Your task to perform on an android device: Go to ESPN.com Image 0: 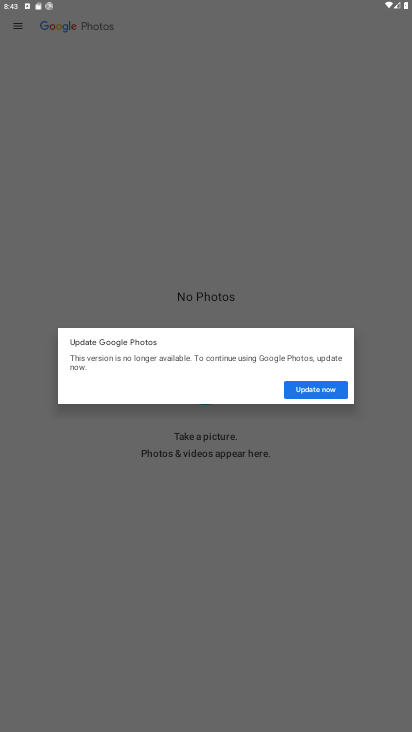
Step 0: press home button
Your task to perform on an android device: Go to ESPN.com Image 1: 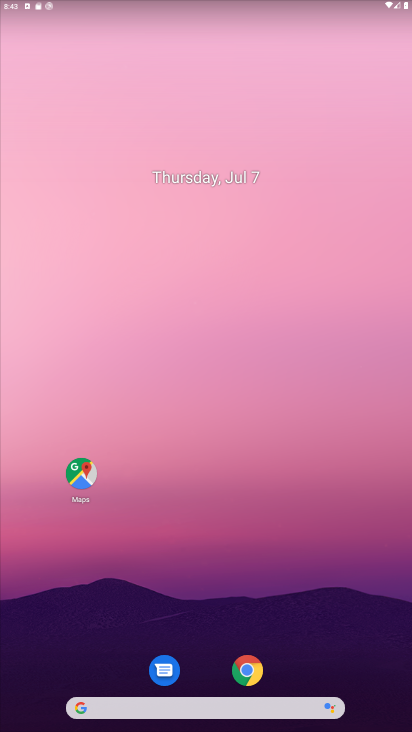
Step 1: click (242, 672)
Your task to perform on an android device: Go to ESPN.com Image 2: 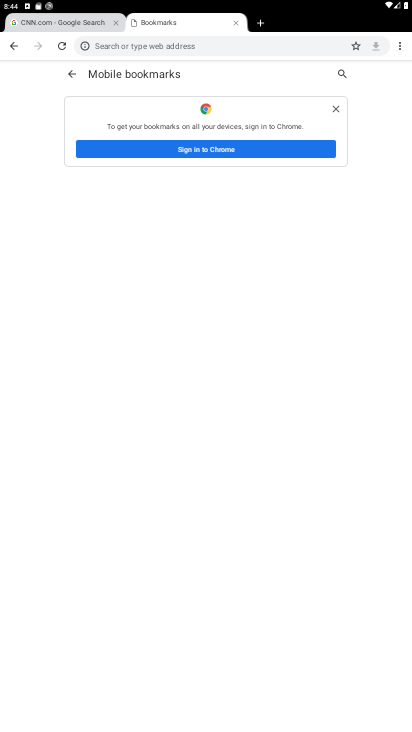
Step 2: click (8, 48)
Your task to perform on an android device: Go to ESPN.com Image 3: 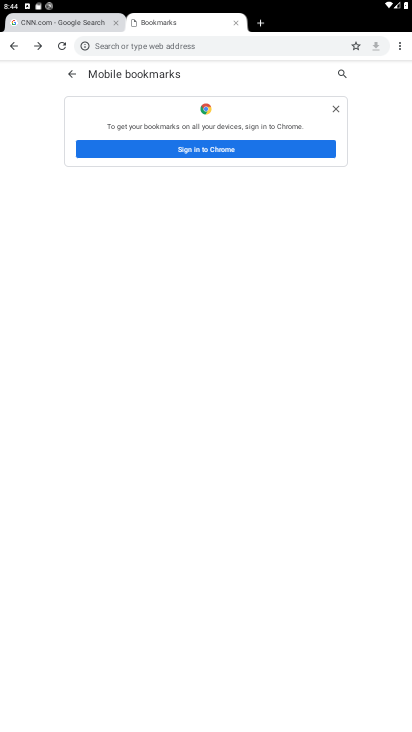
Step 3: drag from (377, 56) to (396, 456)
Your task to perform on an android device: Go to ESPN.com Image 4: 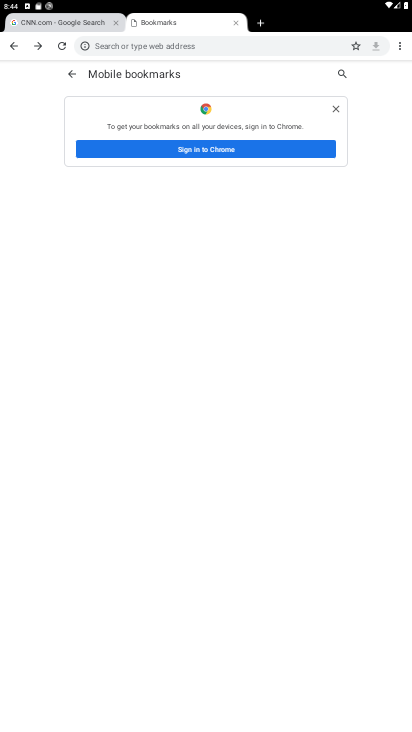
Step 4: drag from (308, 361) to (310, 570)
Your task to perform on an android device: Go to ESPN.com Image 5: 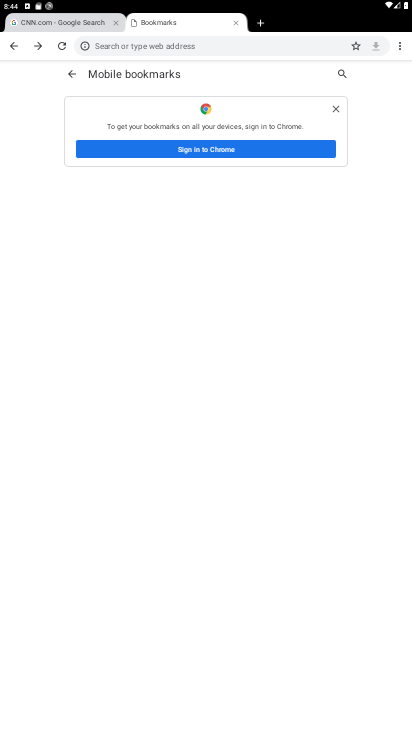
Step 5: click (236, 23)
Your task to perform on an android device: Go to ESPN.com Image 6: 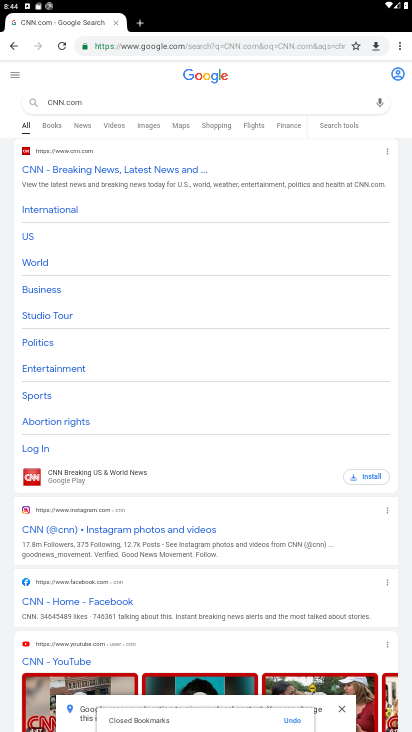
Step 6: click (142, 24)
Your task to perform on an android device: Go to ESPN.com Image 7: 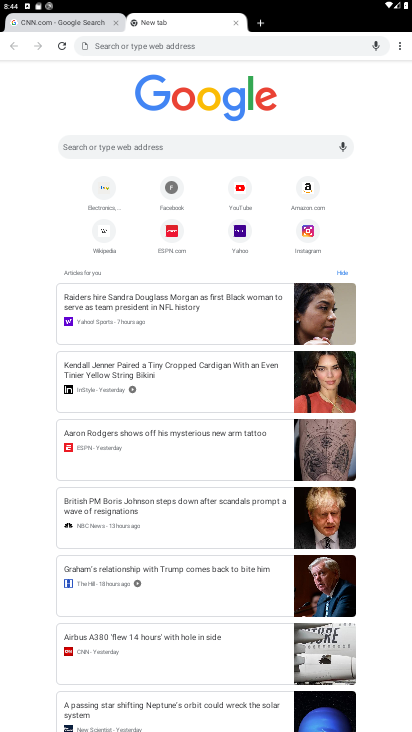
Step 7: click (200, 140)
Your task to perform on an android device: Go to ESPN.com Image 8: 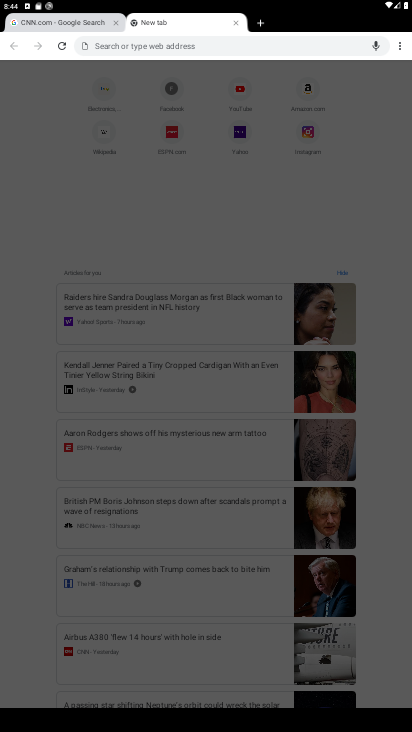
Step 8: type "ESPN.com"
Your task to perform on an android device: Go to ESPN.com Image 9: 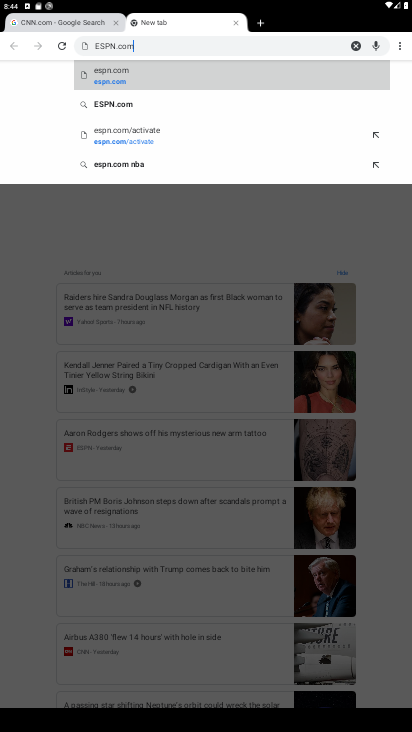
Step 9: type ""
Your task to perform on an android device: Go to ESPN.com Image 10: 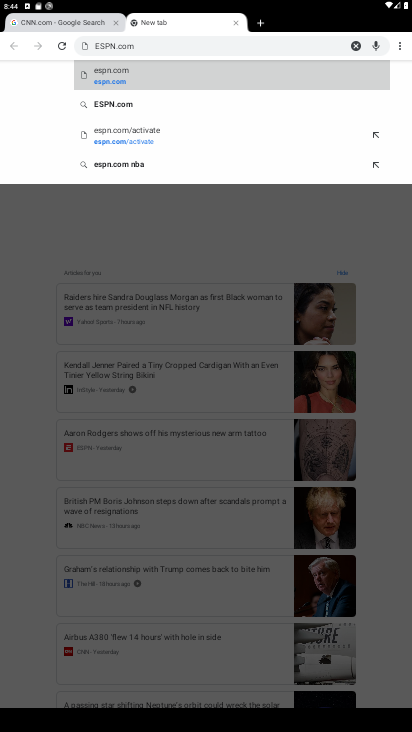
Step 10: click (109, 104)
Your task to perform on an android device: Go to ESPN.com Image 11: 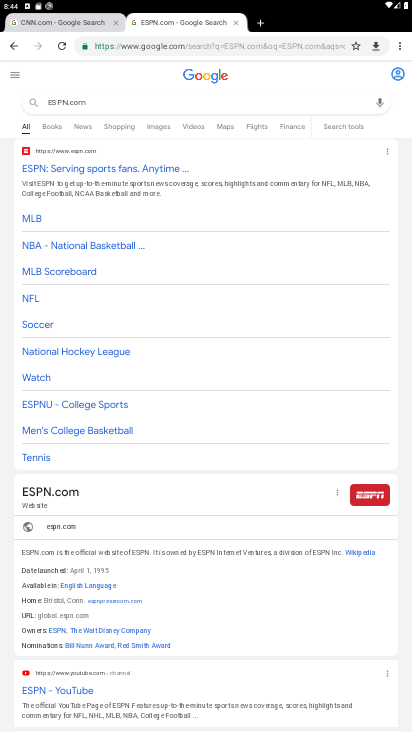
Step 11: click (66, 491)
Your task to perform on an android device: Go to ESPN.com Image 12: 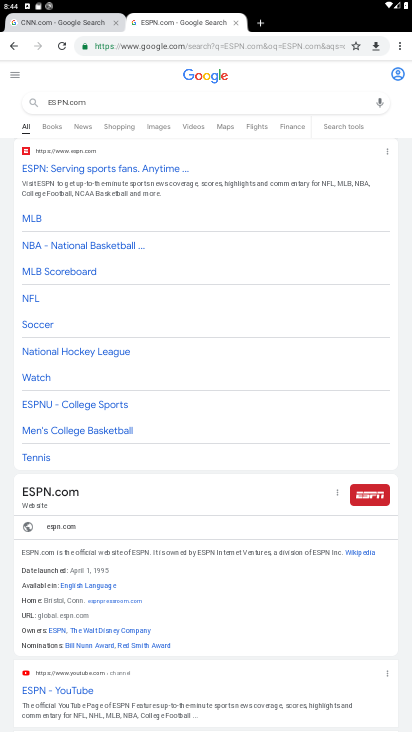
Step 12: click (97, 160)
Your task to perform on an android device: Go to ESPN.com Image 13: 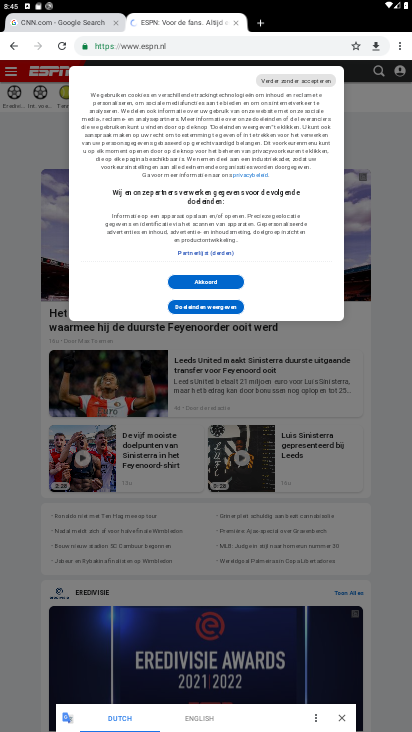
Step 13: task complete